Your task to perform on an android device: Add "razer naga" to the cart on bestbuy Image 0: 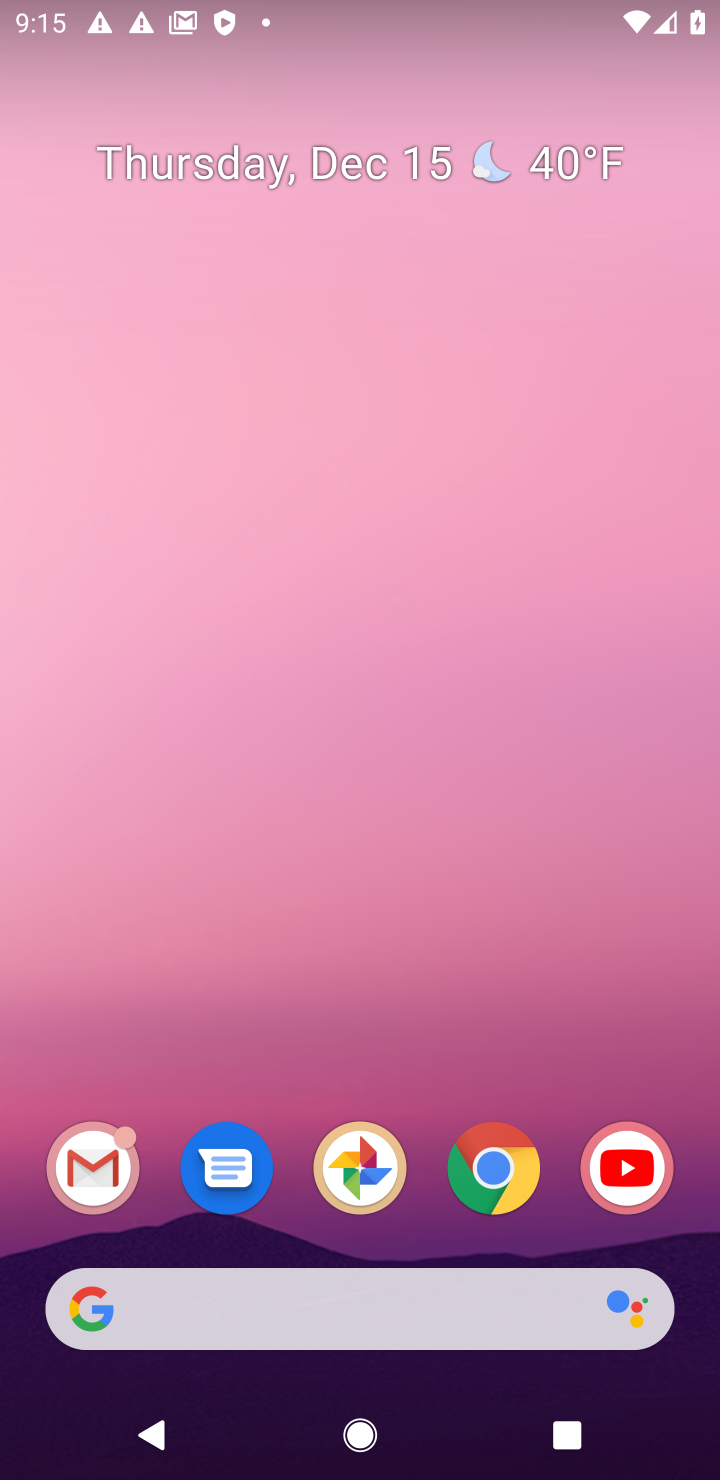
Step 0: click (472, 1192)
Your task to perform on an android device: Add "razer naga" to the cart on bestbuy Image 1: 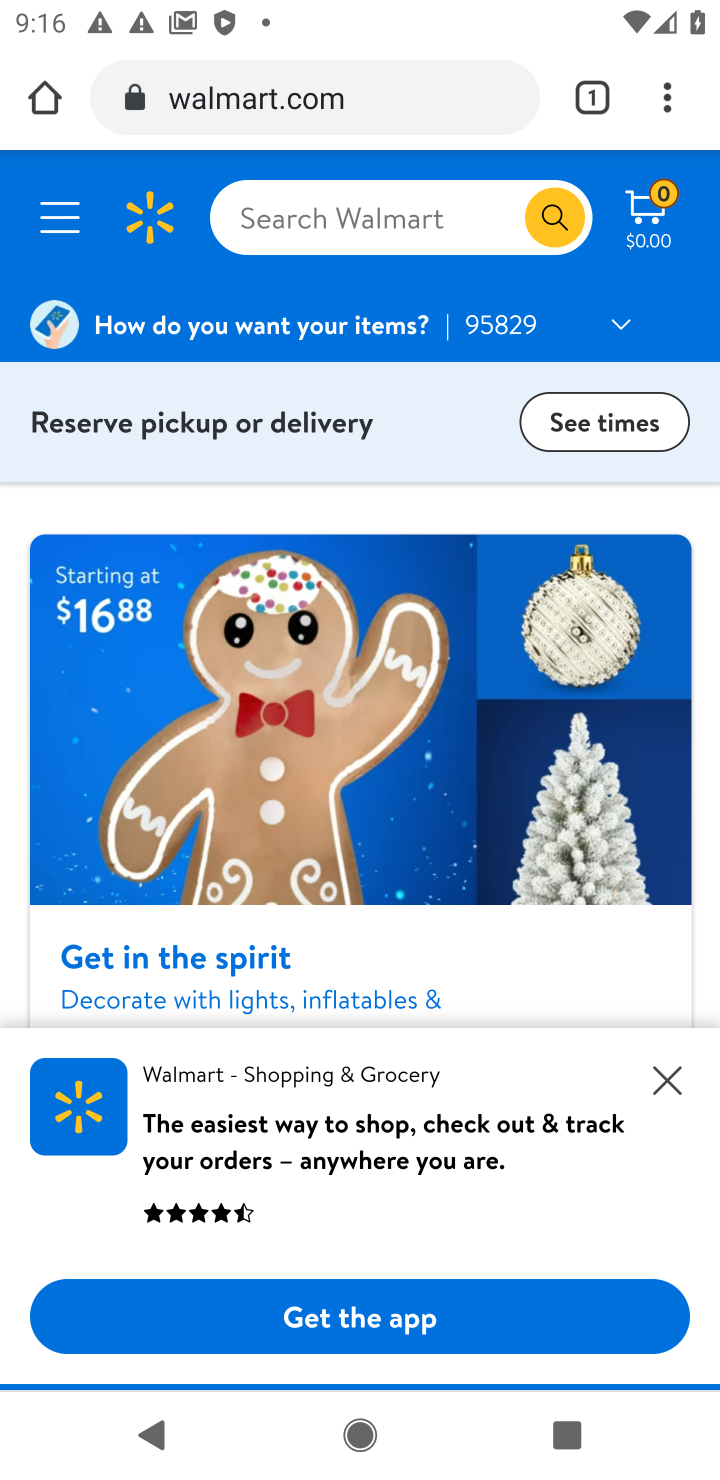
Step 1: click (380, 88)
Your task to perform on an android device: Add "razer naga" to the cart on bestbuy Image 2: 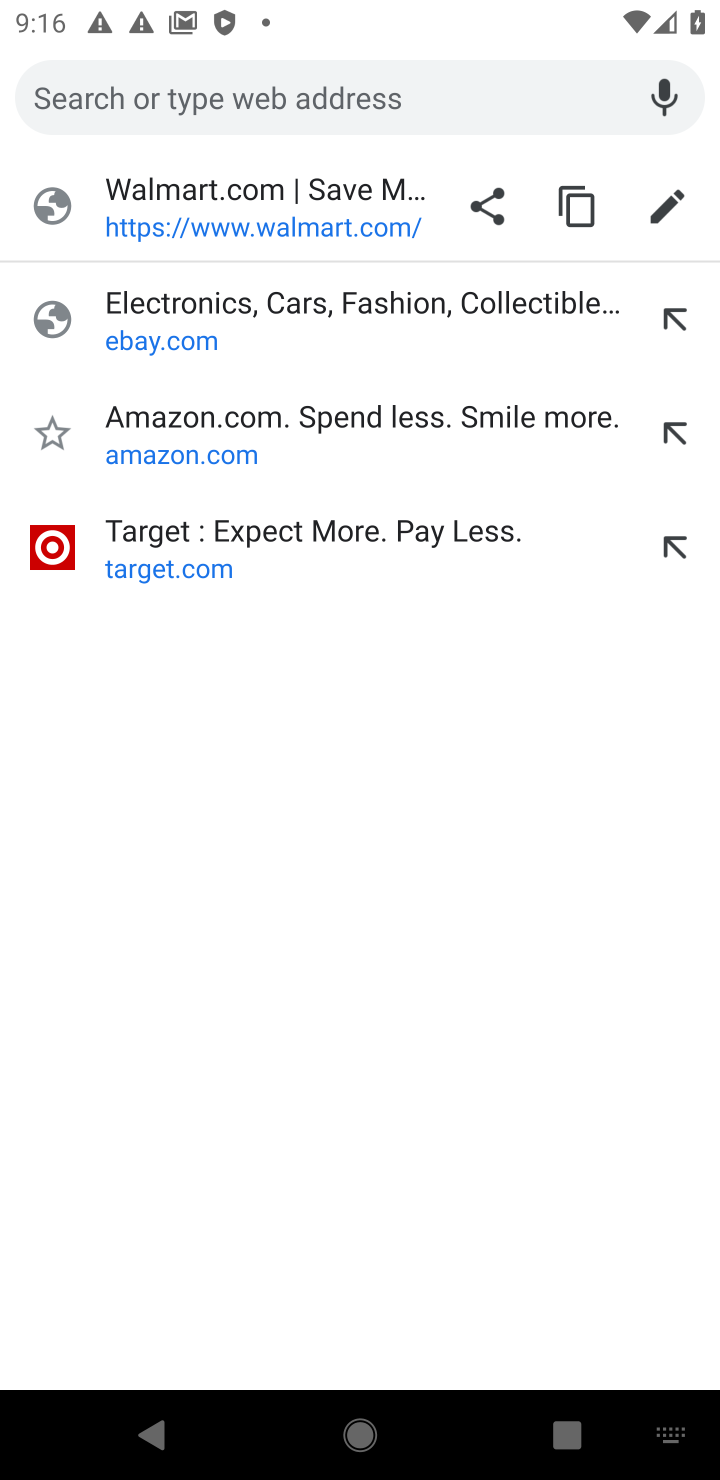
Step 2: type "BESTBUY"
Your task to perform on an android device: Add "razer naga" to the cart on bestbuy Image 3: 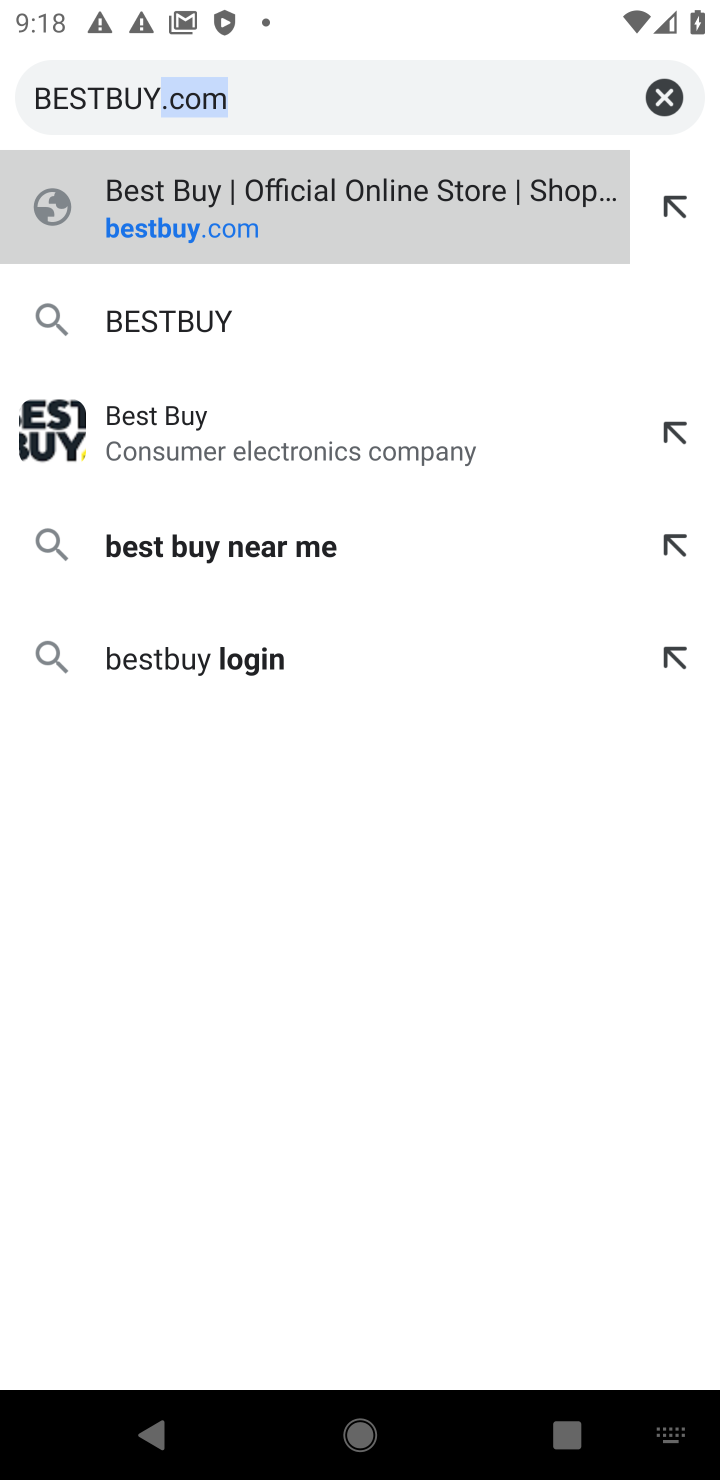
Step 3: click (347, 216)
Your task to perform on an android device: Add "razer naga" to the cart on bestbuy Image 4: 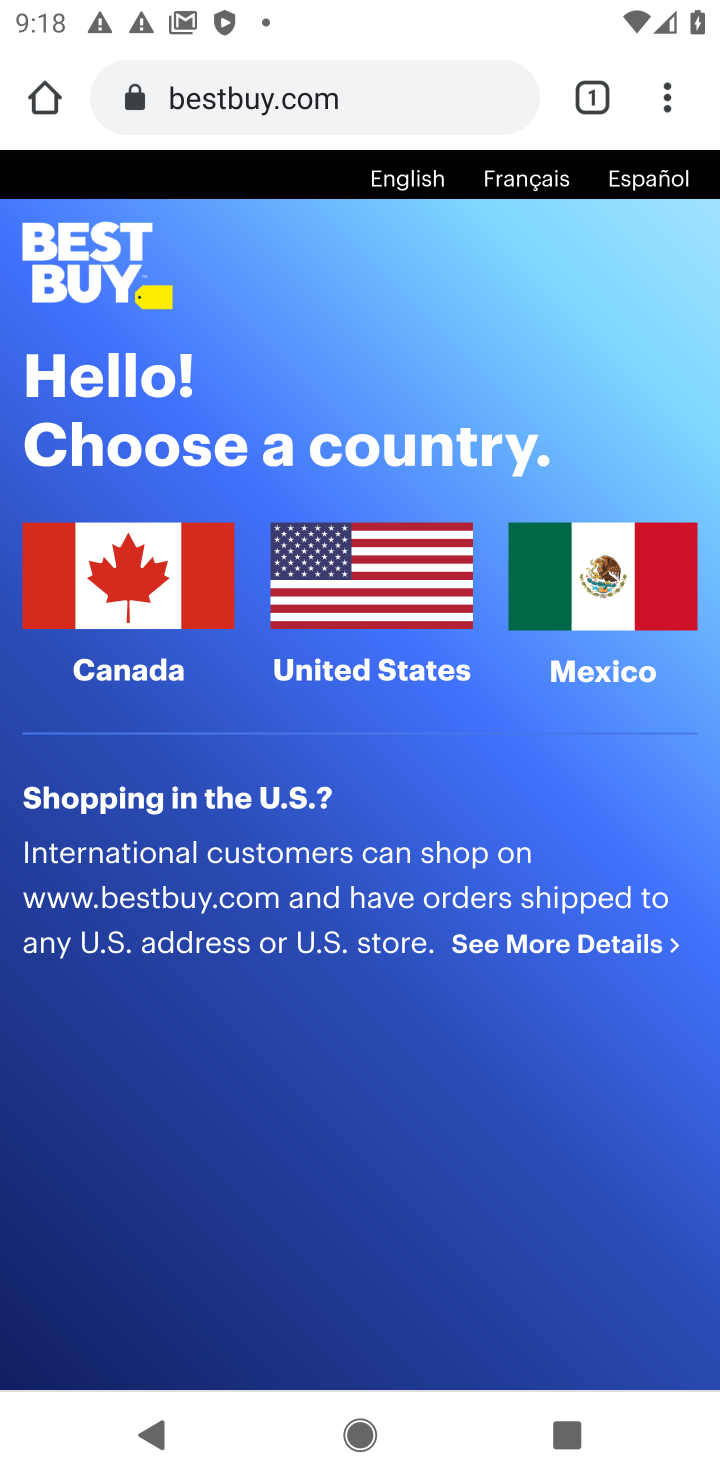
Step 4: click (381, 576)
Your task to perform on an android device: Add "razer naga" to the cart on bestbuy Image 5: 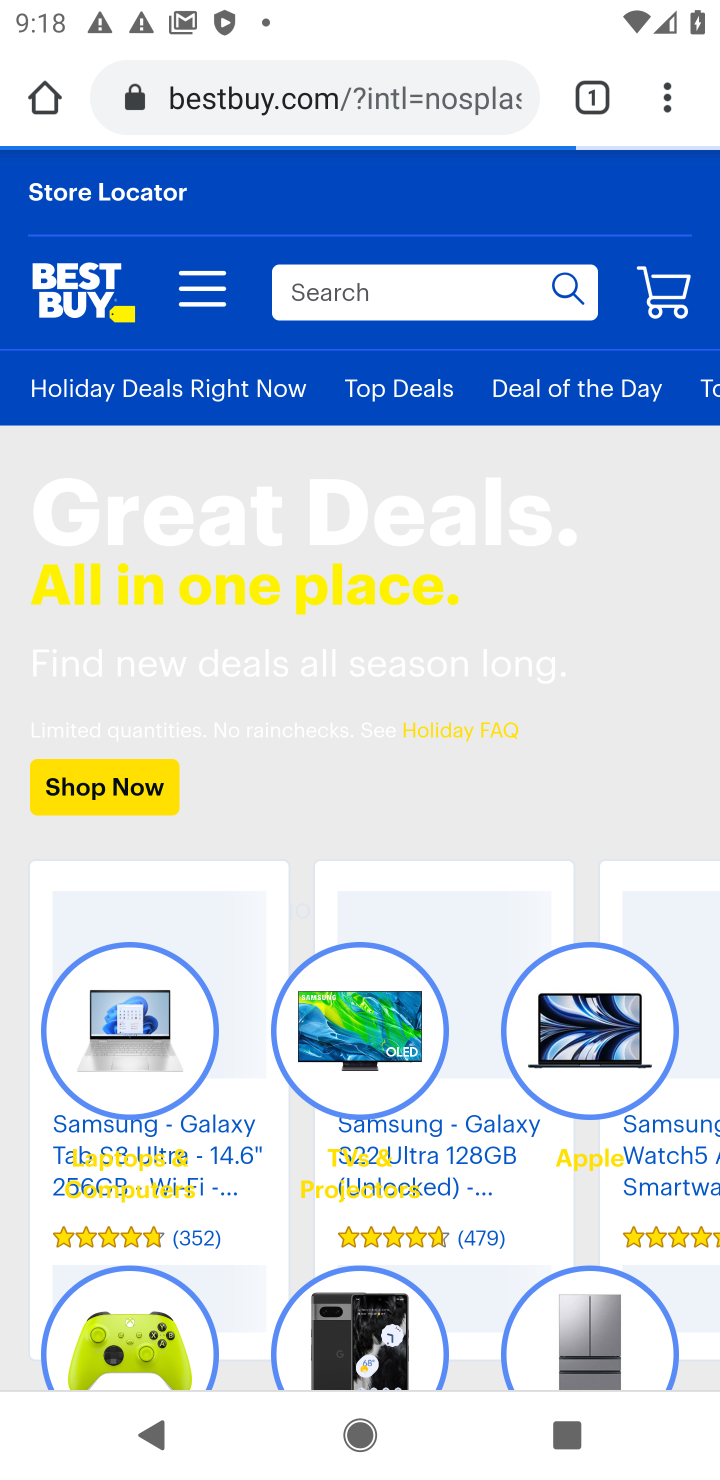
Step 5: click (398, 284)
Your task to perform on an android device: Add "razer naga" to the cart on bestbuy Image 6: 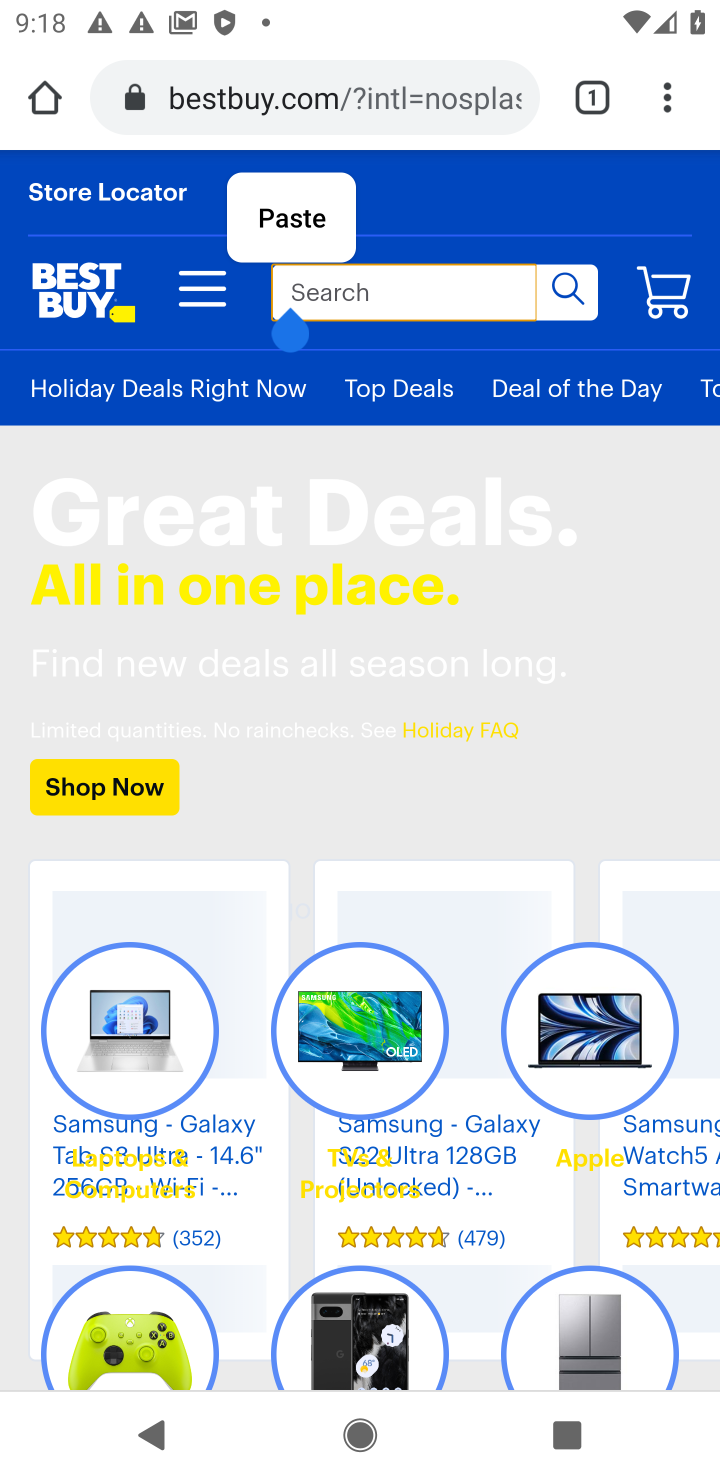
Step 6: type "razer naga"
Your task to perform on an android device: Add "razer naga" to the cart on bestbuy Image 7: 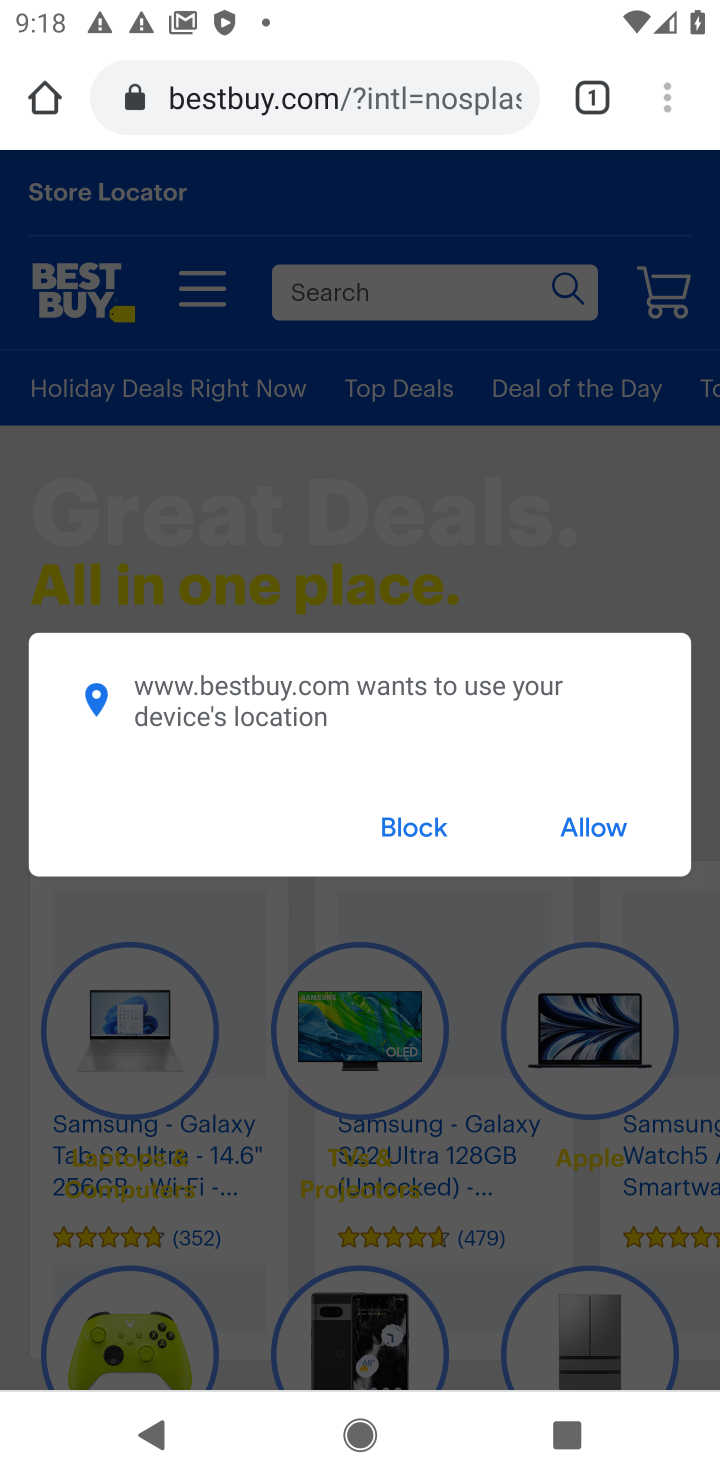
Step 7: click (411, 833)
Your task to perform on an android device: Add "razer naga" to the cart on bestbuy Image 8: 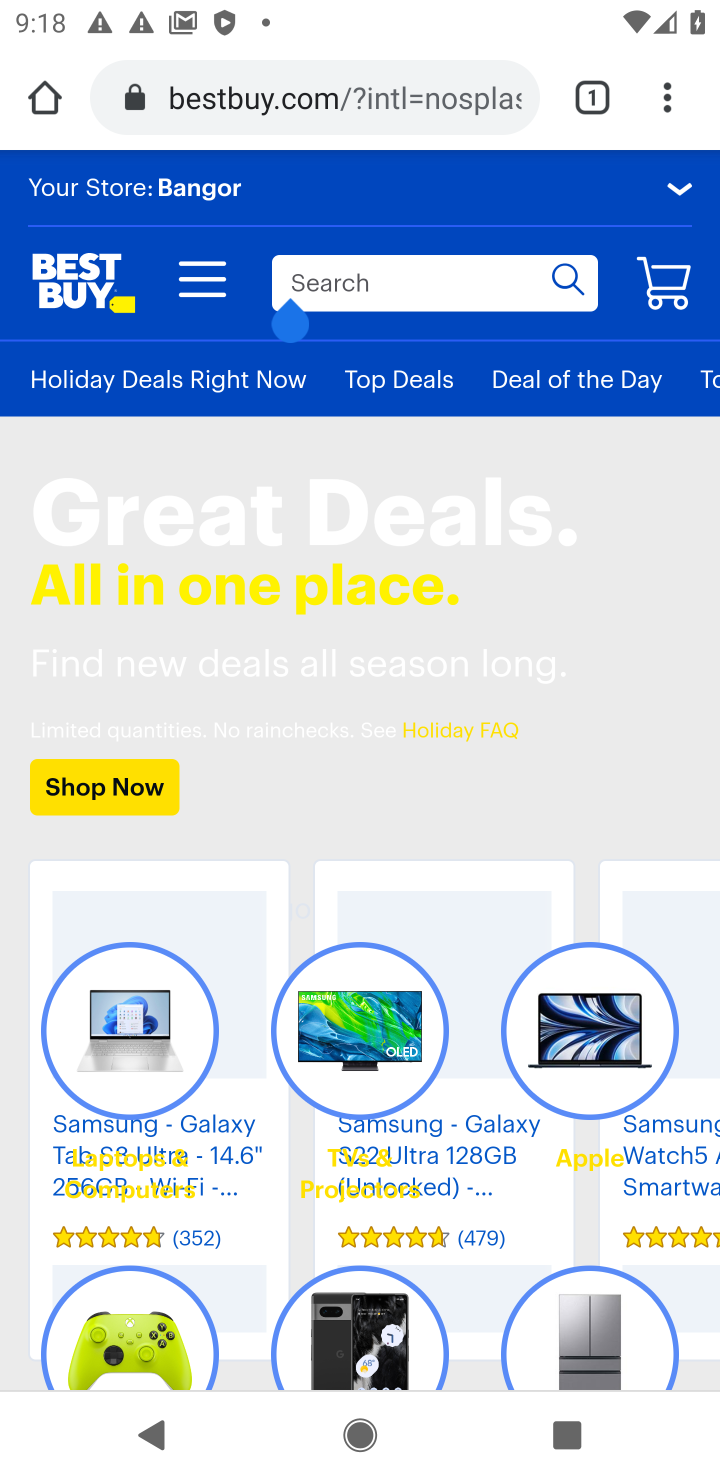
Step 8: click (386, 285)
Your task to perform on an android device: Add "razer naga" to the cart on bestbuy Image 9: 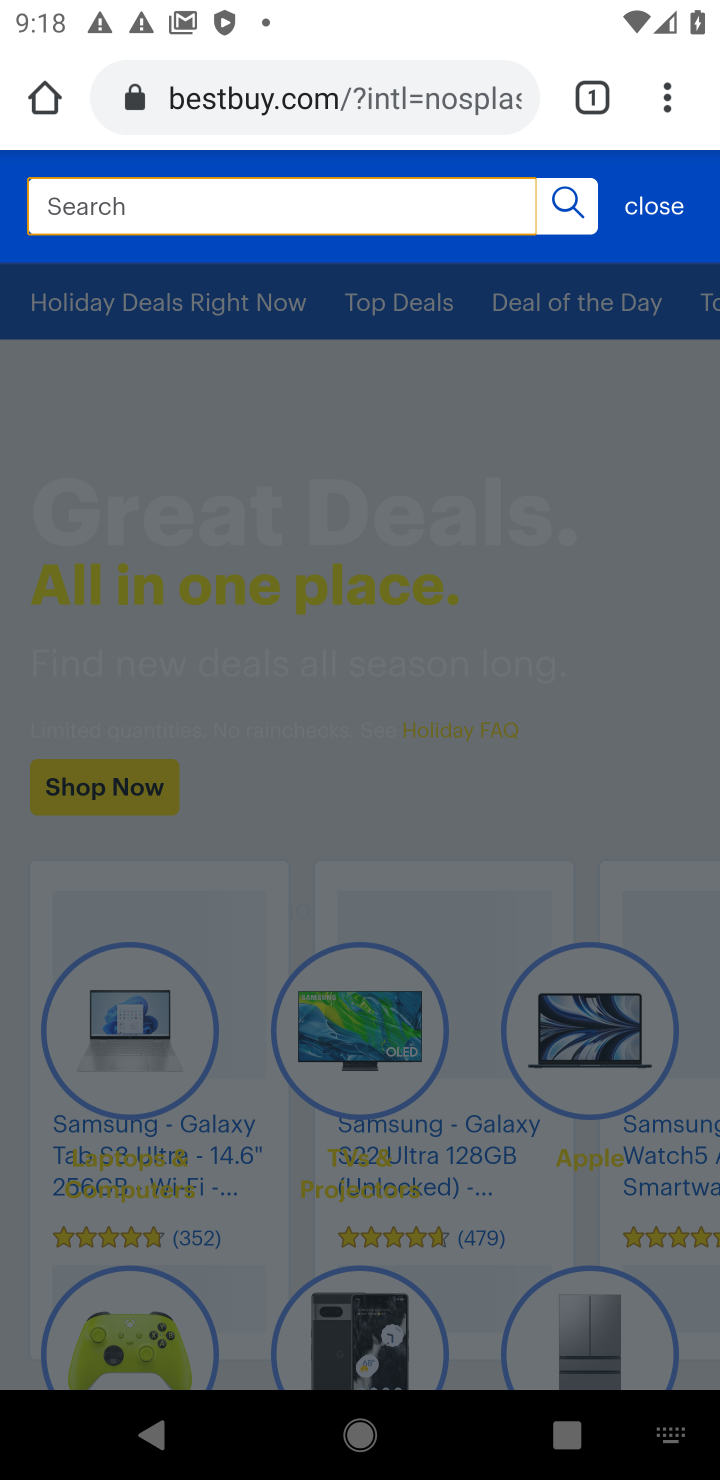
Step 9: type "razer naga"
Your task to perform on an android device: Add "razer naga" to the cart on bestbuy Image 10: 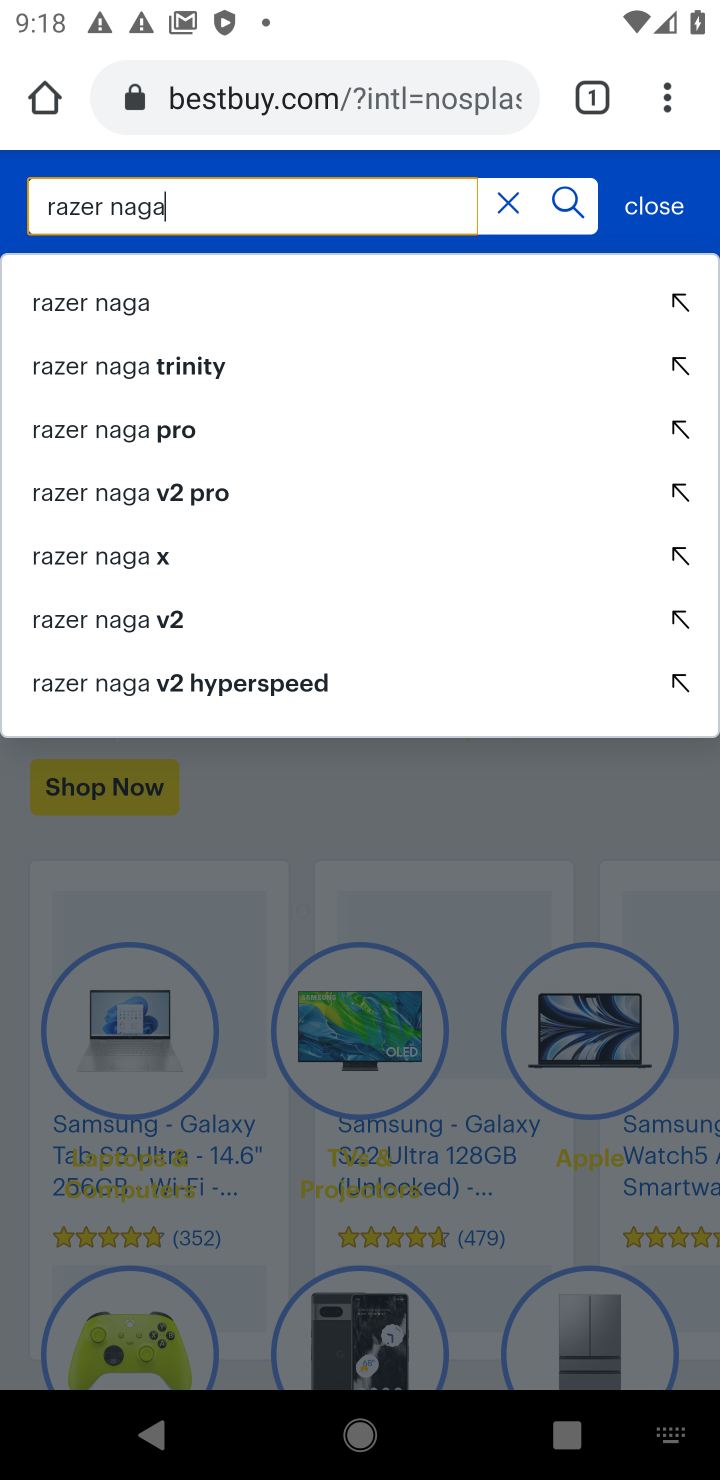
Step 10: click (132, 315)
Your task to perform on an android device: Add "razer naga" to the cart on bestbuy Image 11: 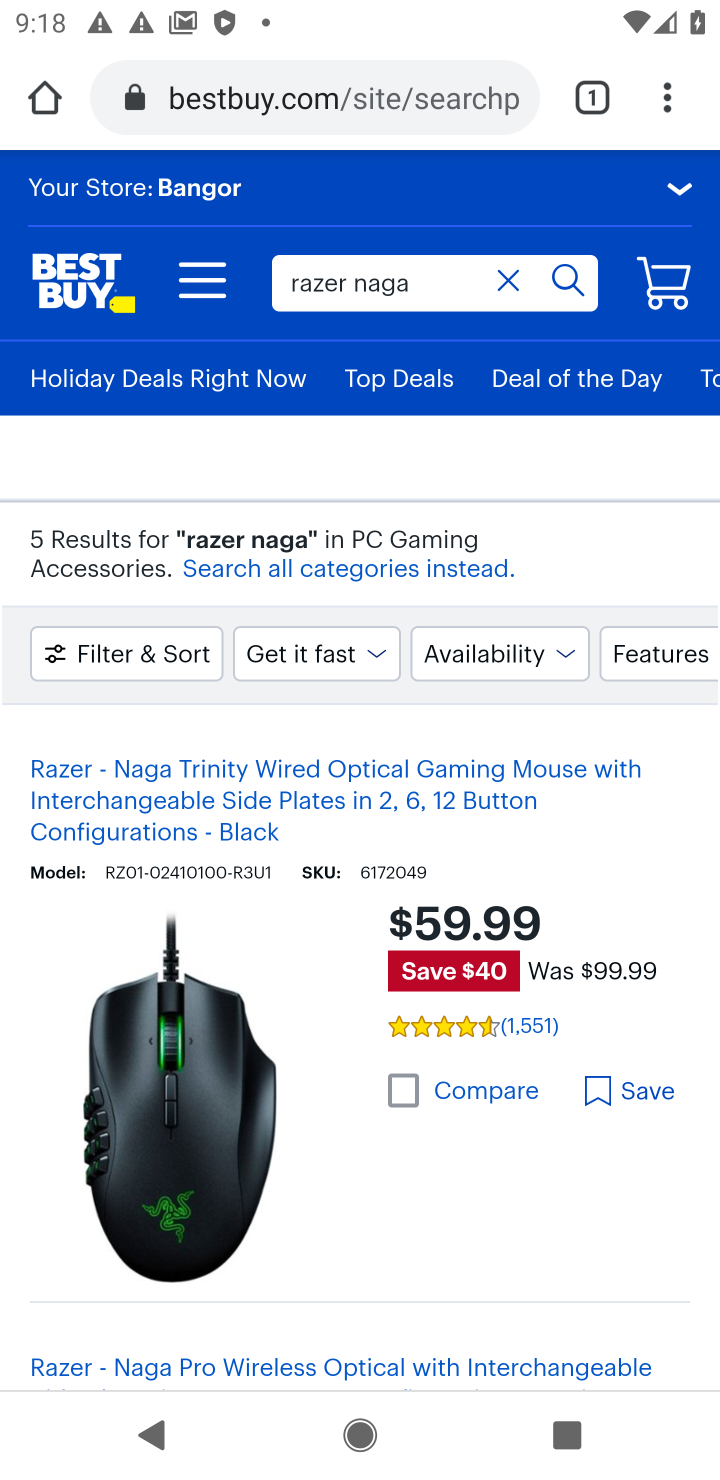
Step 11: drag from (553, 1193) to (496, 496)
Your task to perform on an android device: Add "razer naga" to the cart on bestbuy Image 12: 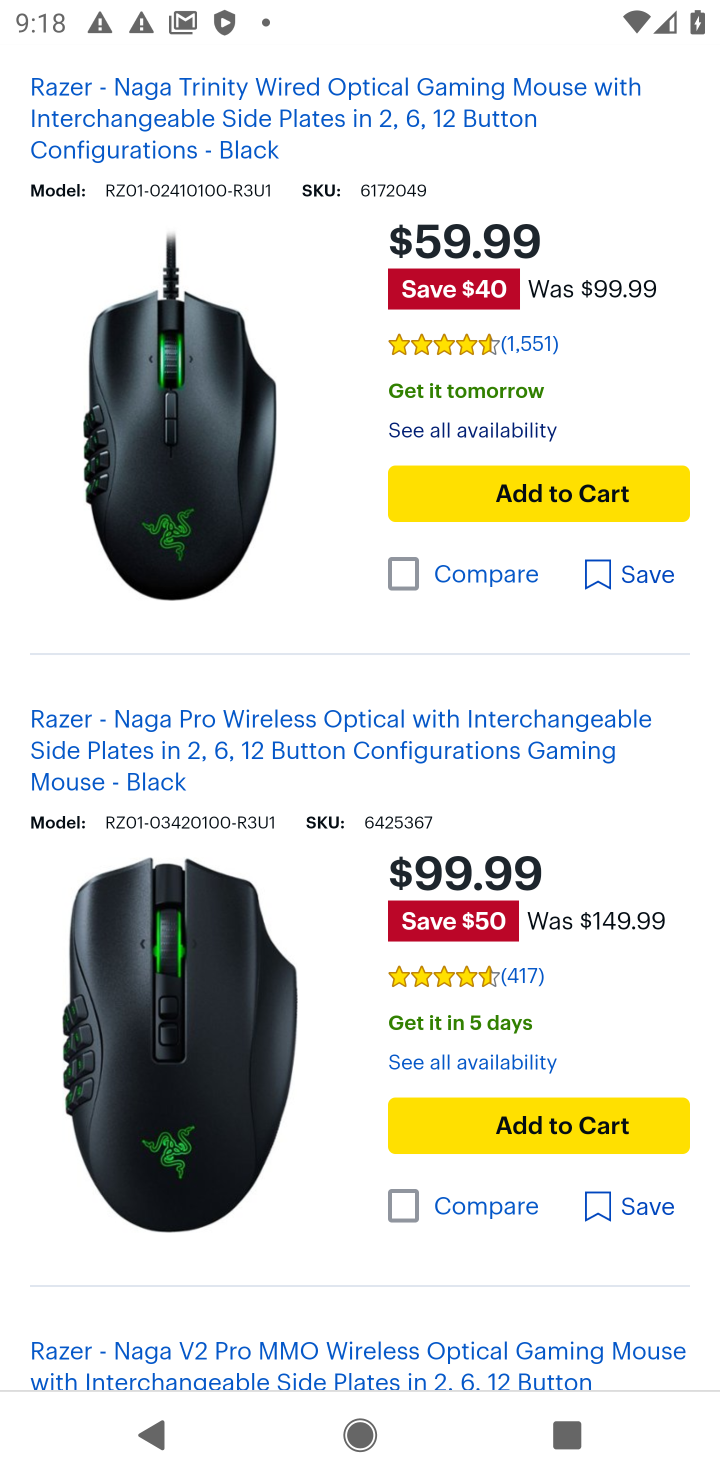
Step 12: click (512, 491)
Your task to perform on an android device: Add "razer naga" to the cart on bestbuy Image 13: 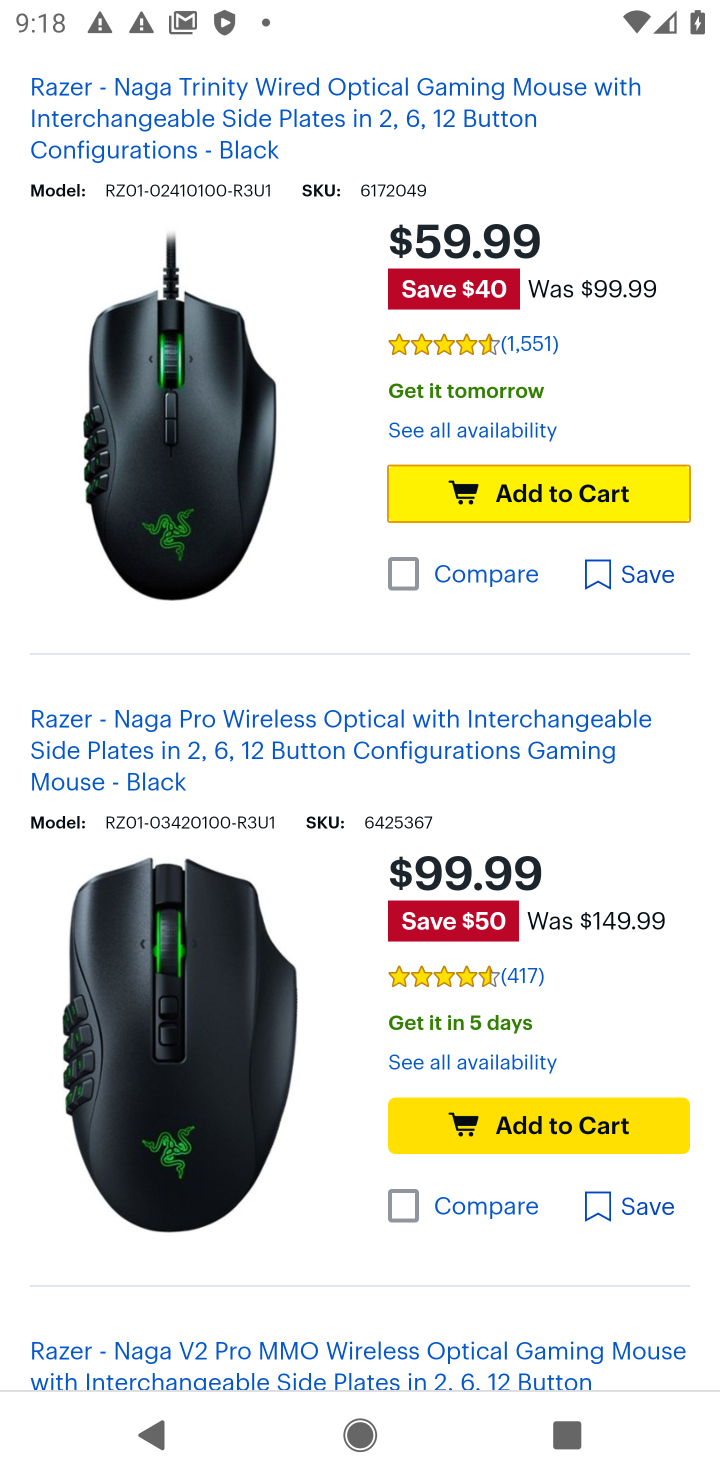
Step 13: task complete